Your task to perform on an android device: install app "Pluto TV - Live TV and Movies" Image 0: 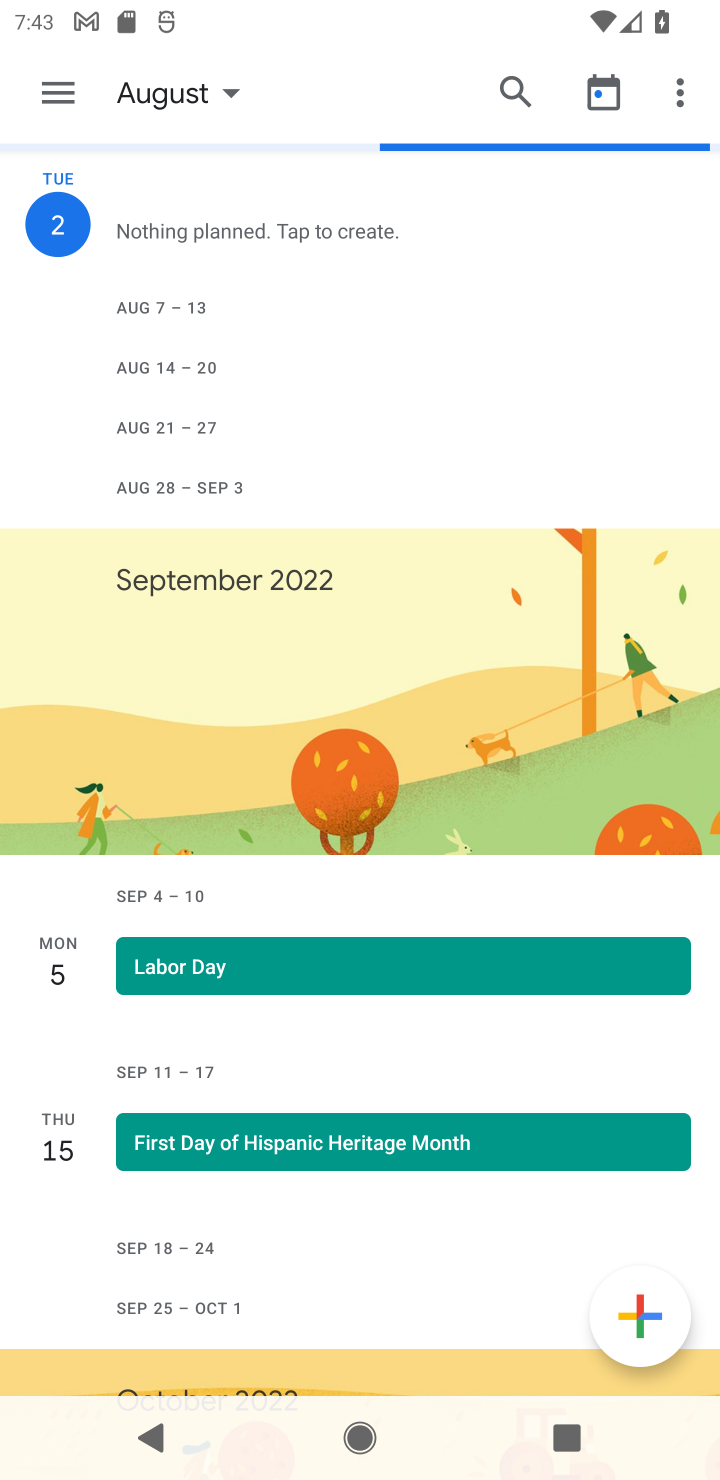
Step 0: press back button
Your task to perform on an android device: install app "Pluto TV - Live TV and Movies" Image 1: 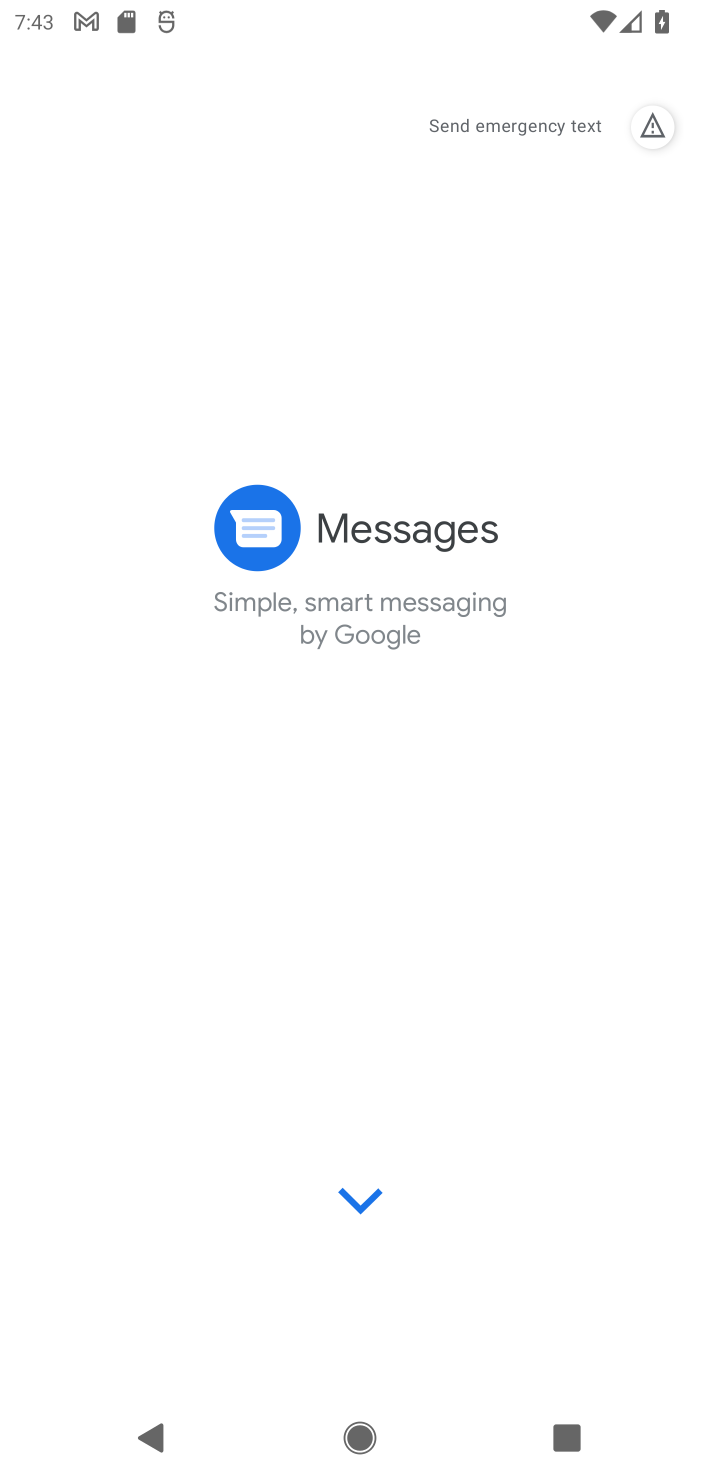
Step 1: press back button
Your task to perform on an android device: install app "Pluto TV - Live TV and Movies" Image 2: 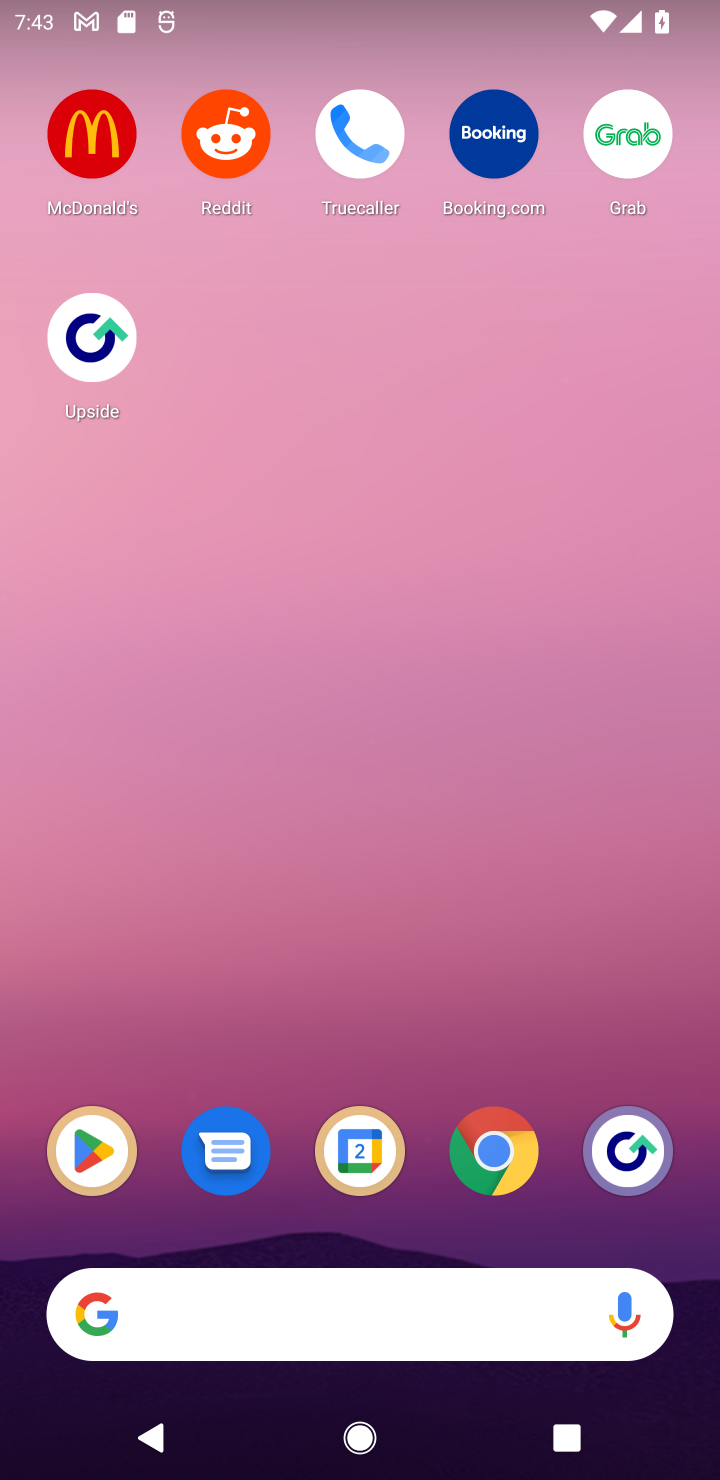
Step 2: drag from (365, 1245) to (370, 145)
Your task to perform on an android device: install app "Pluto TV - Live TV and Movies" Image 3: 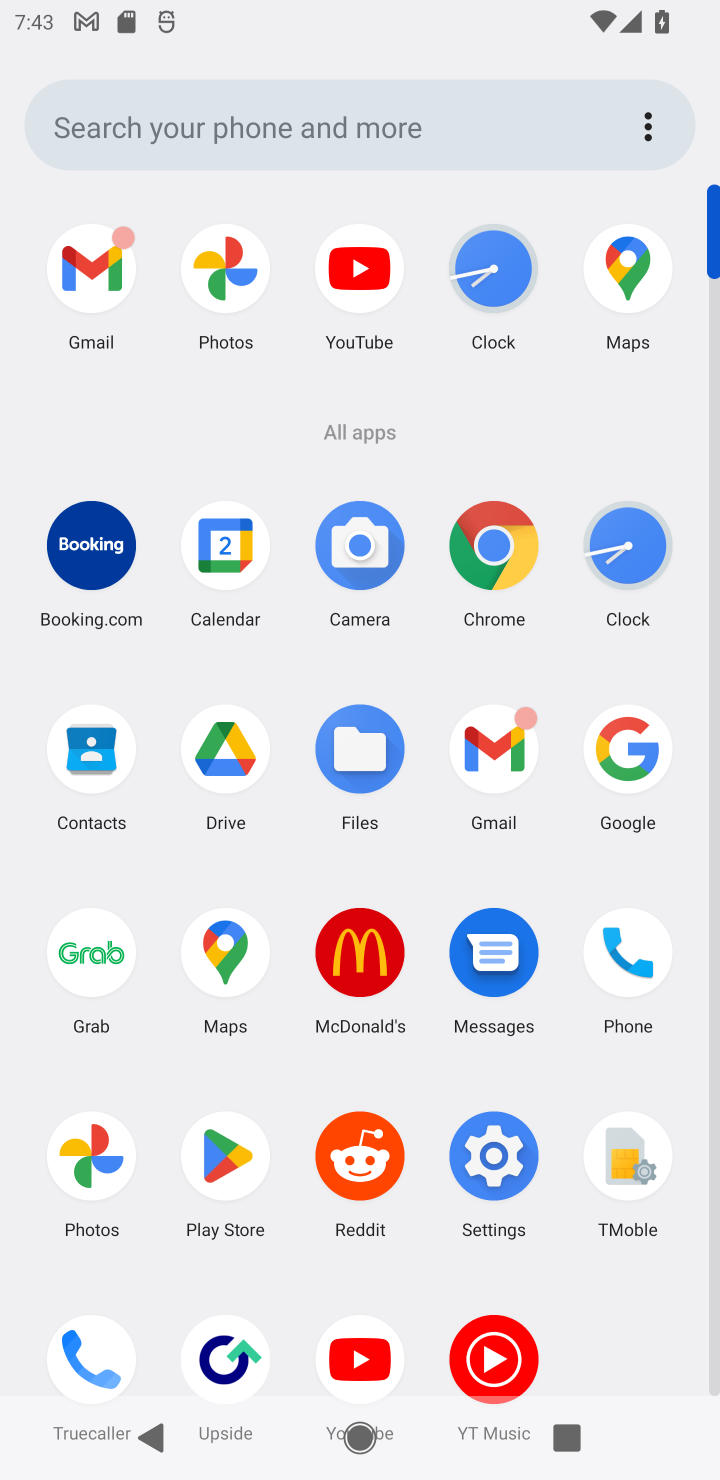
Step 3: click (222, 1216)
Your task to perform on an android device: install app "Pluto TV - Live TV and Movies" Image 4: 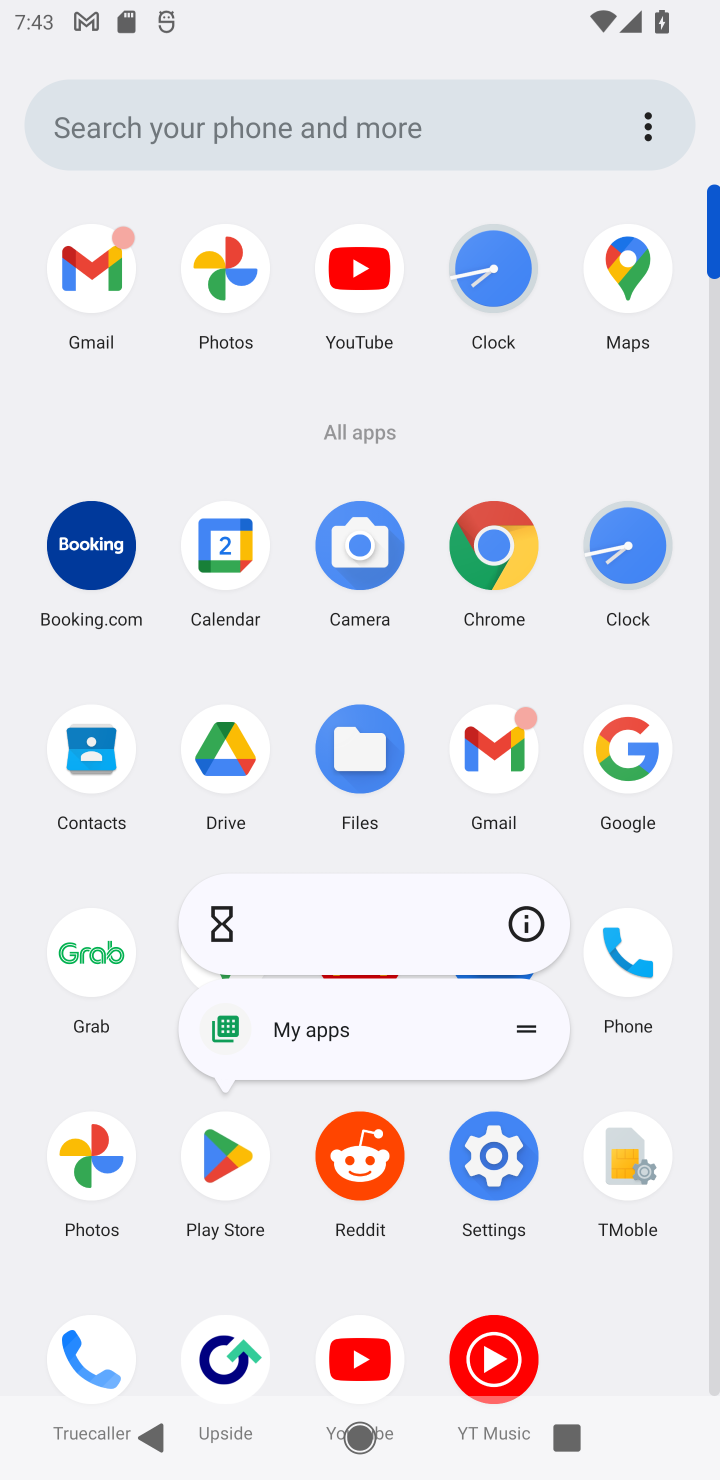
Step 4: click (246, 1169)
Your task to perform on an android device: install app "Pluto TV - Live TV and Movies" Image 5: 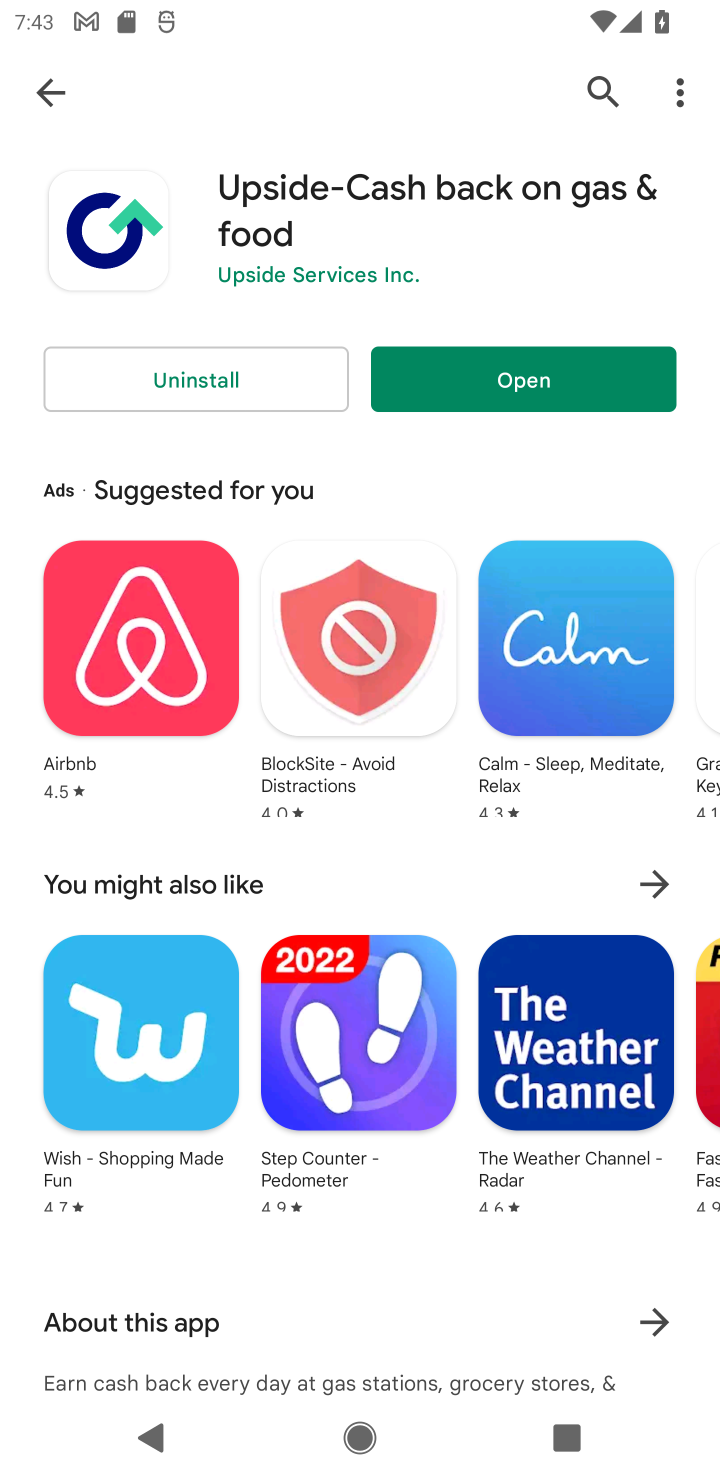
Step 5: click (42, 96)
Your task to perform on an android device: install app "Pluto TV - Live TV and Movies" Image 6: 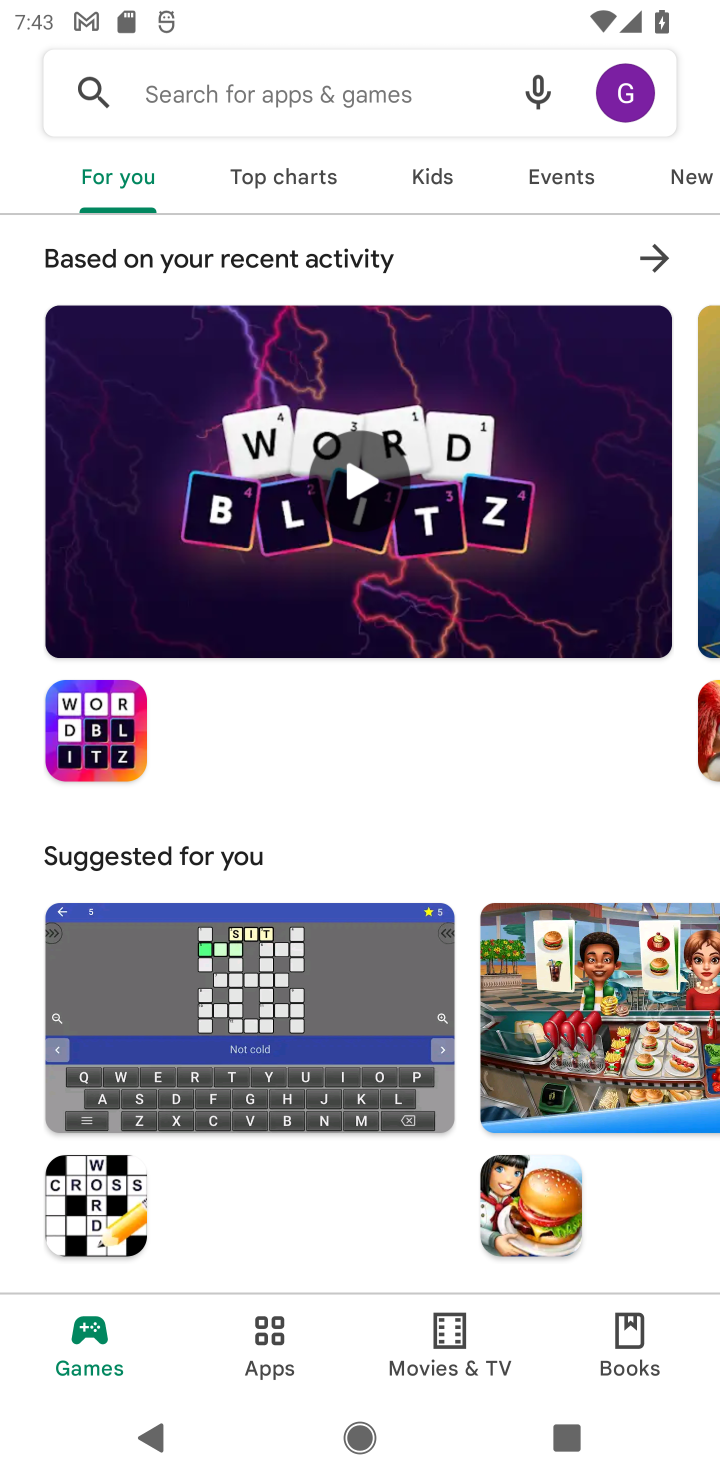
Step 6: click (277, 77)
Your task to perform on an android device: install app "Pluto TV - Live TV and Movies" Image 7: 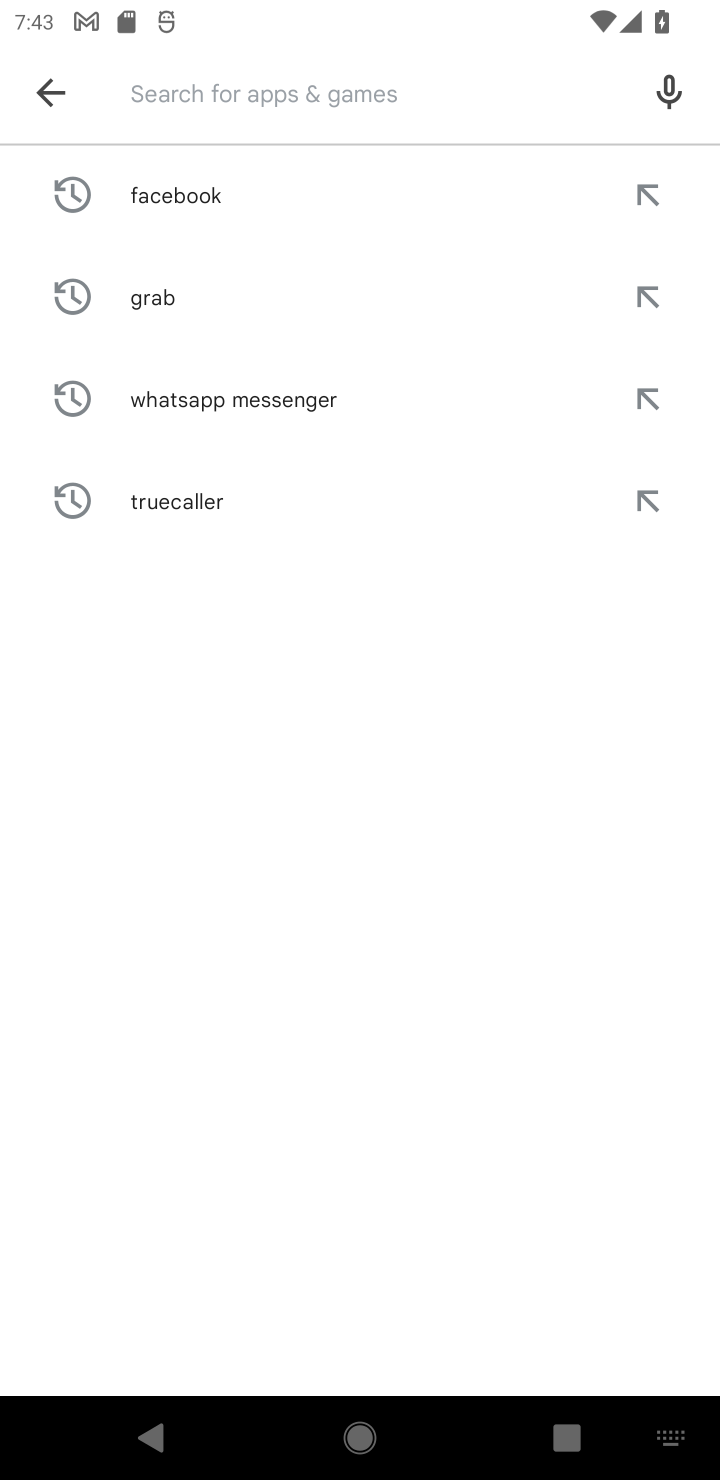
Step 7: type "Pluto TV - Live TV and Movies"
Your task to perform on an android device: install app "Pluto TV - Live TV and Movies" Image 8: 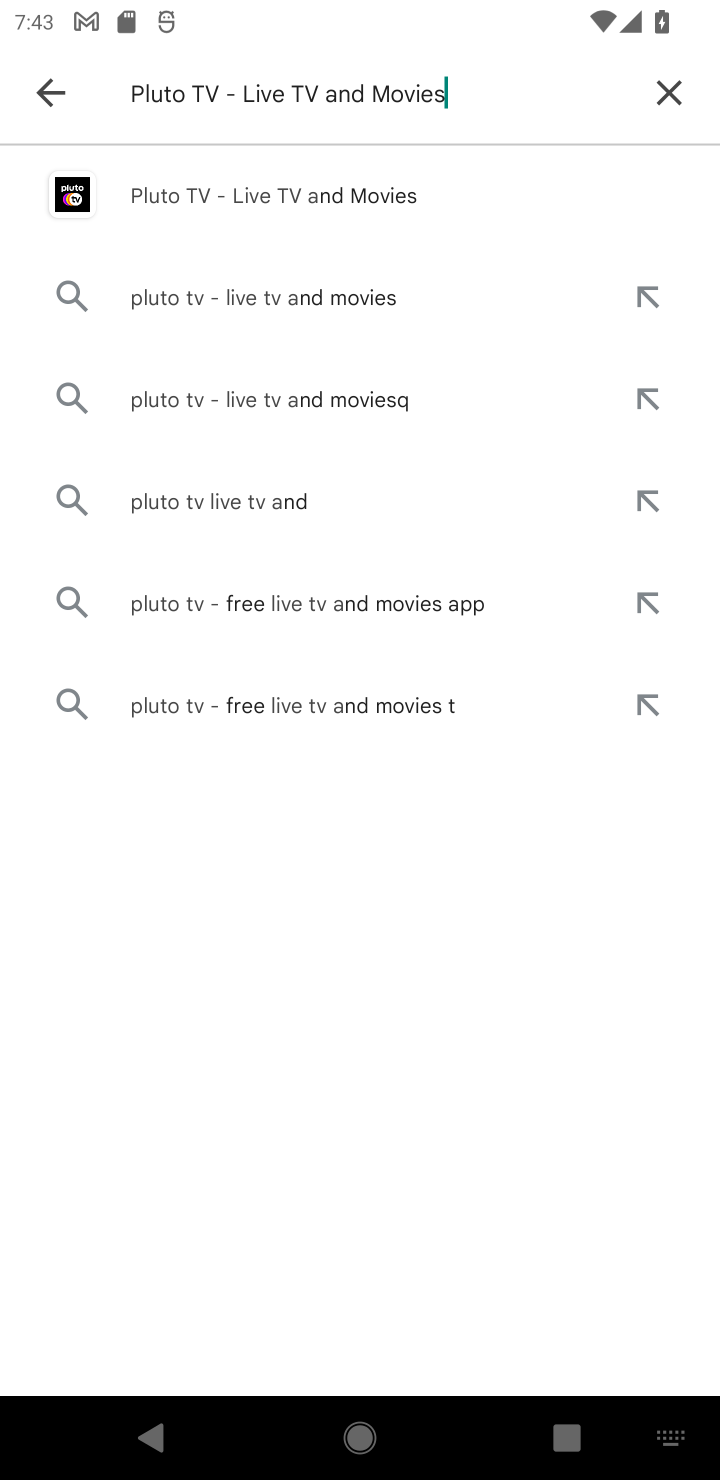
Step 8: type ""
Your task to perform on an android device: install app "Pluto TV - Live TV and Movies" Image 9: 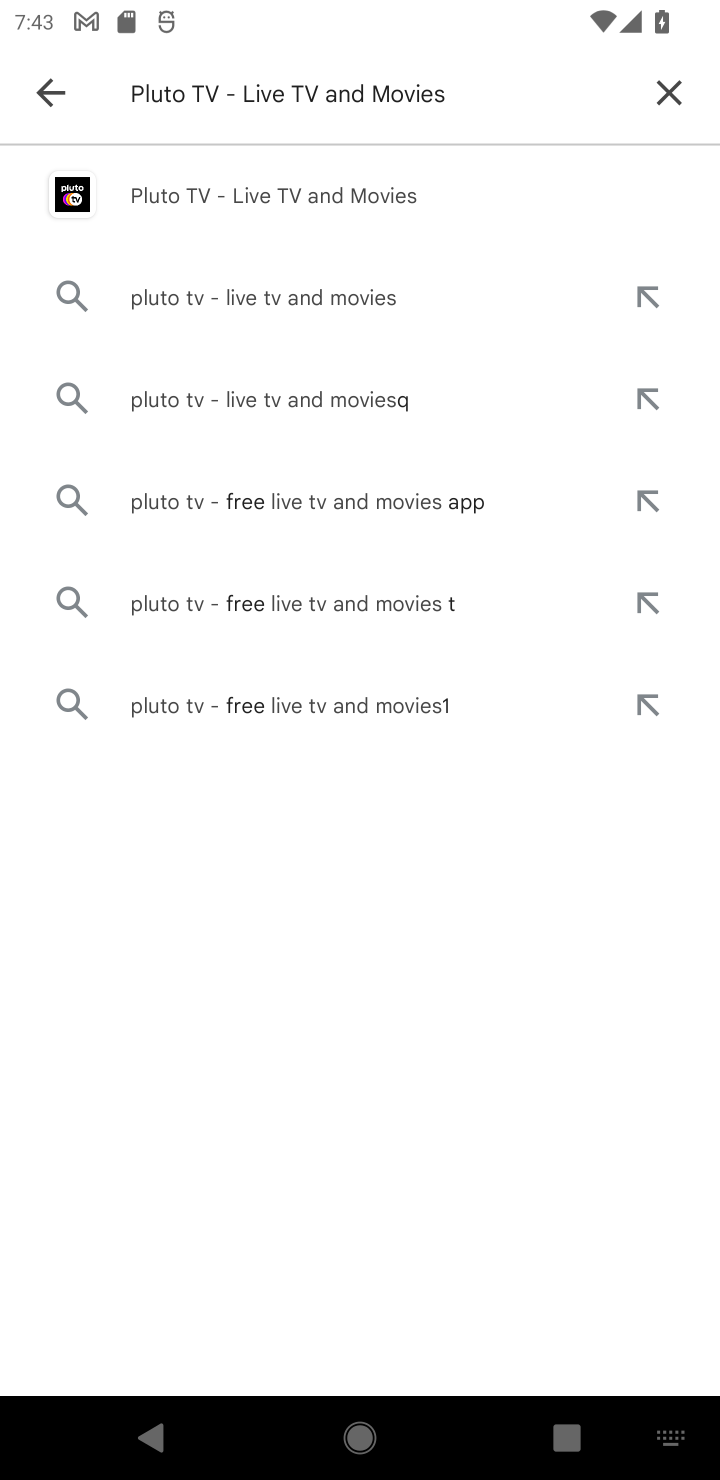
Step 9: click (160, 205)
Your task to perform on an android device: install app "Pluto TV - Live TV and Movies" Image 10: 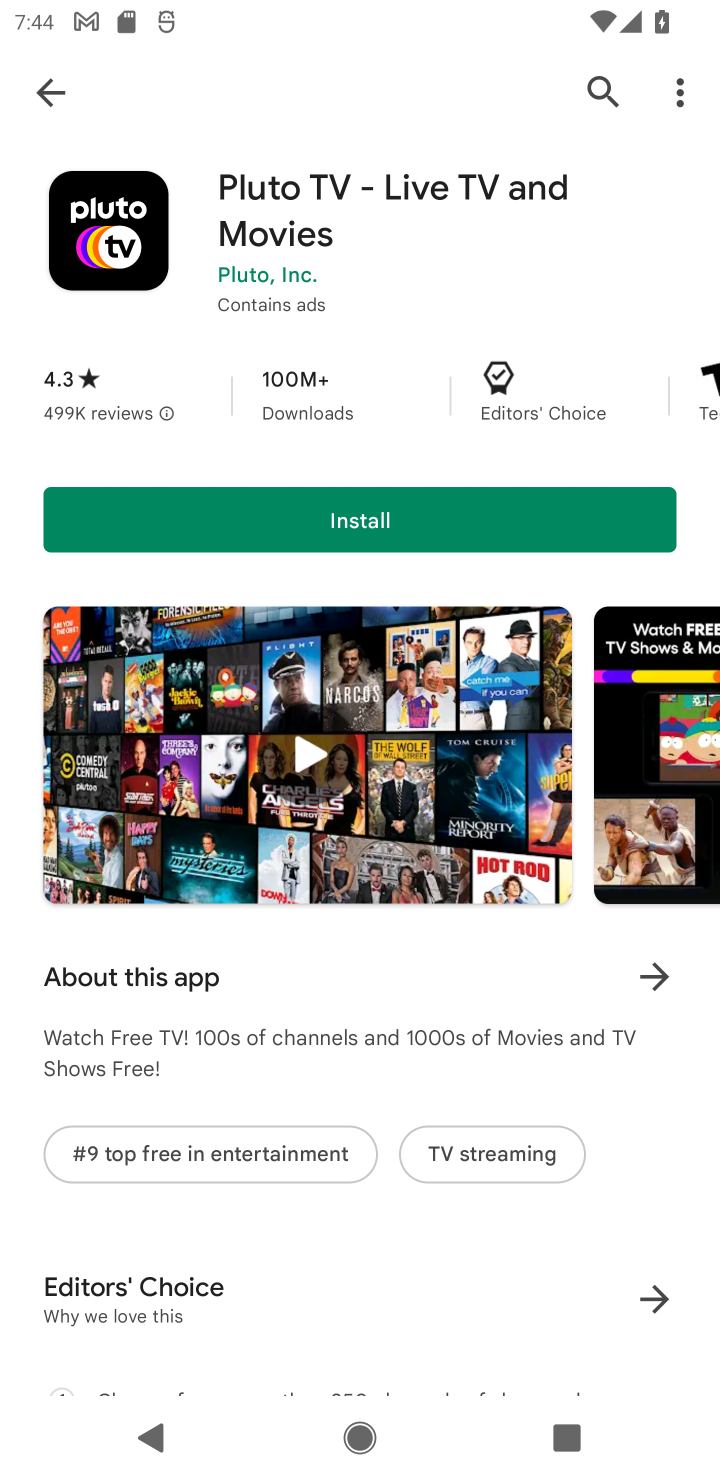
Step 10: click (412, 534)
Your task to perform on an android device: install app "Pluto TV - Live TV and Movies" Image 11: 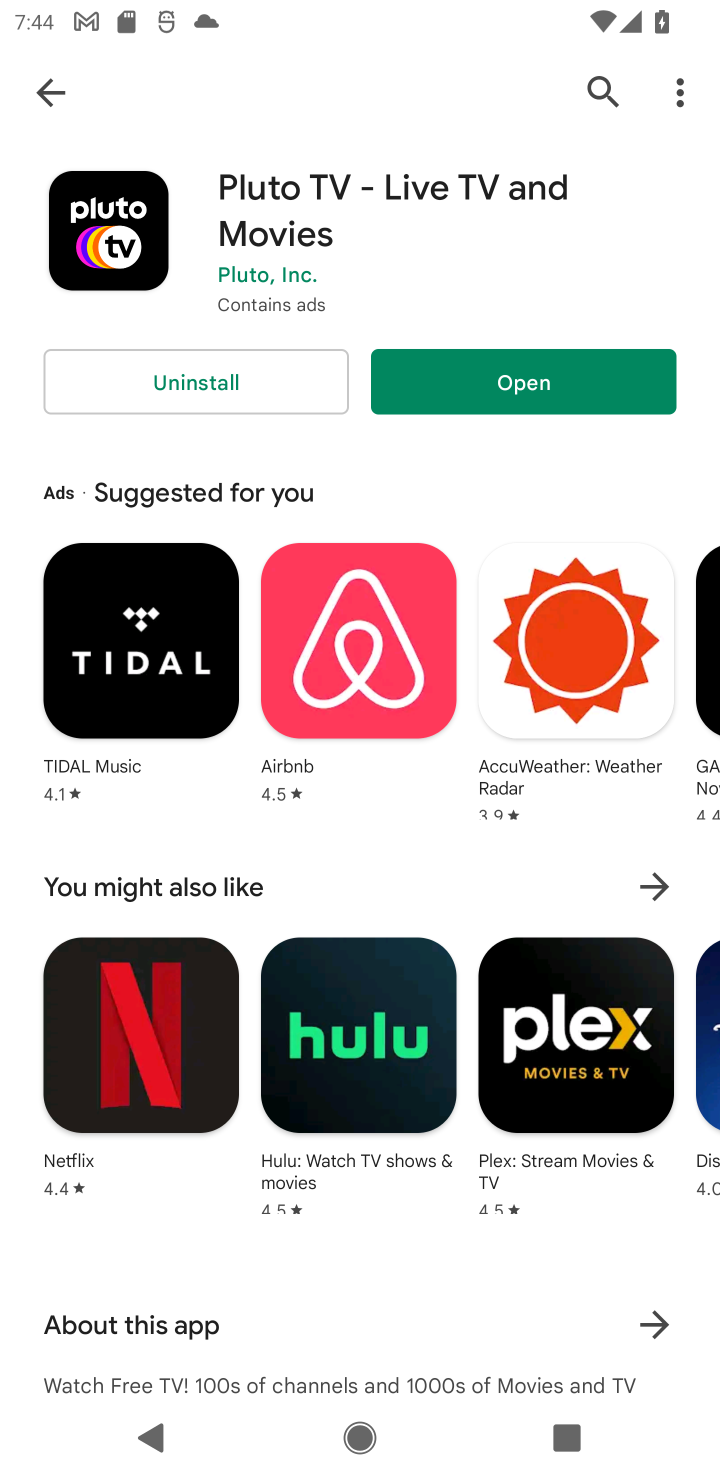
Step 11: click (499, 372)
Your task to perform on an android device: install app "Pluto TV - Live TV and Movies" Image 12: 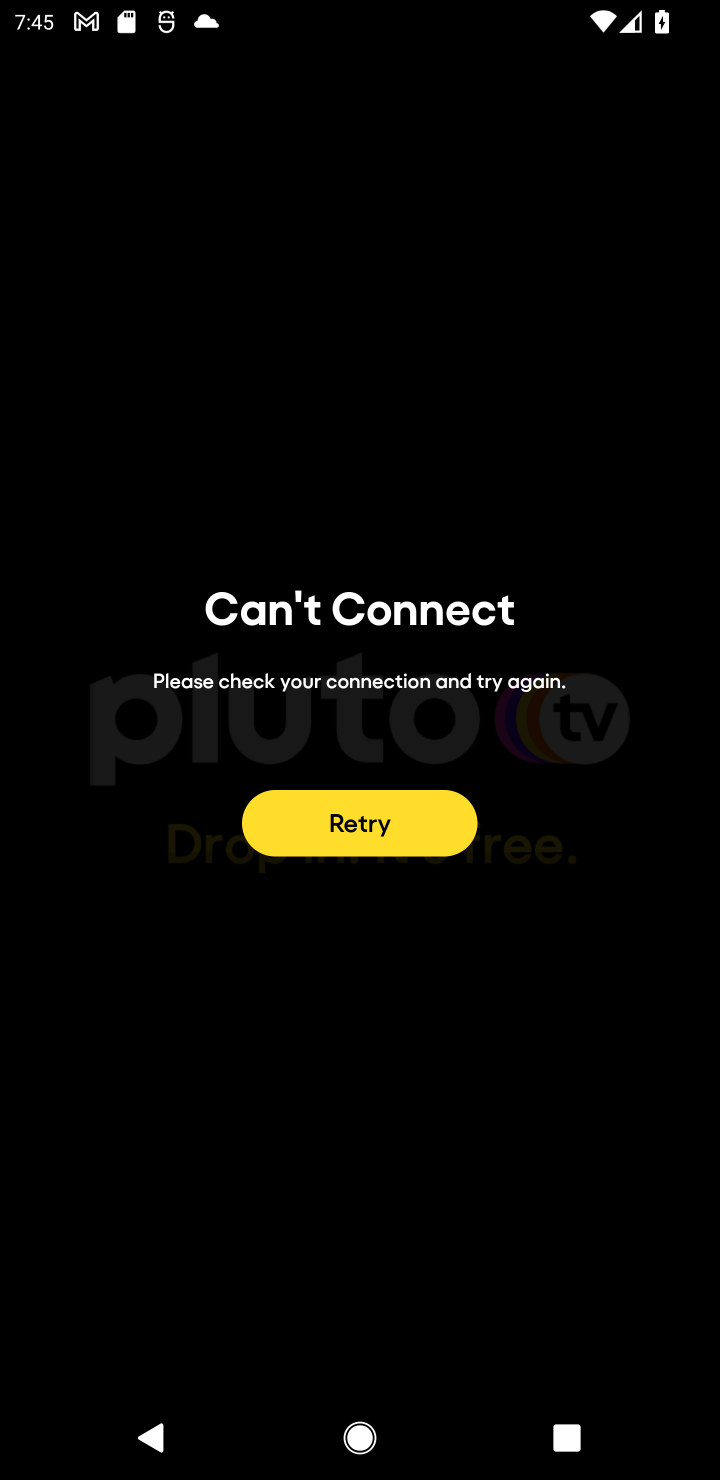
Step 12: press home button
Your task to perform on an android device: install app "Pluto TV - Live TV and Movies" Image 13: 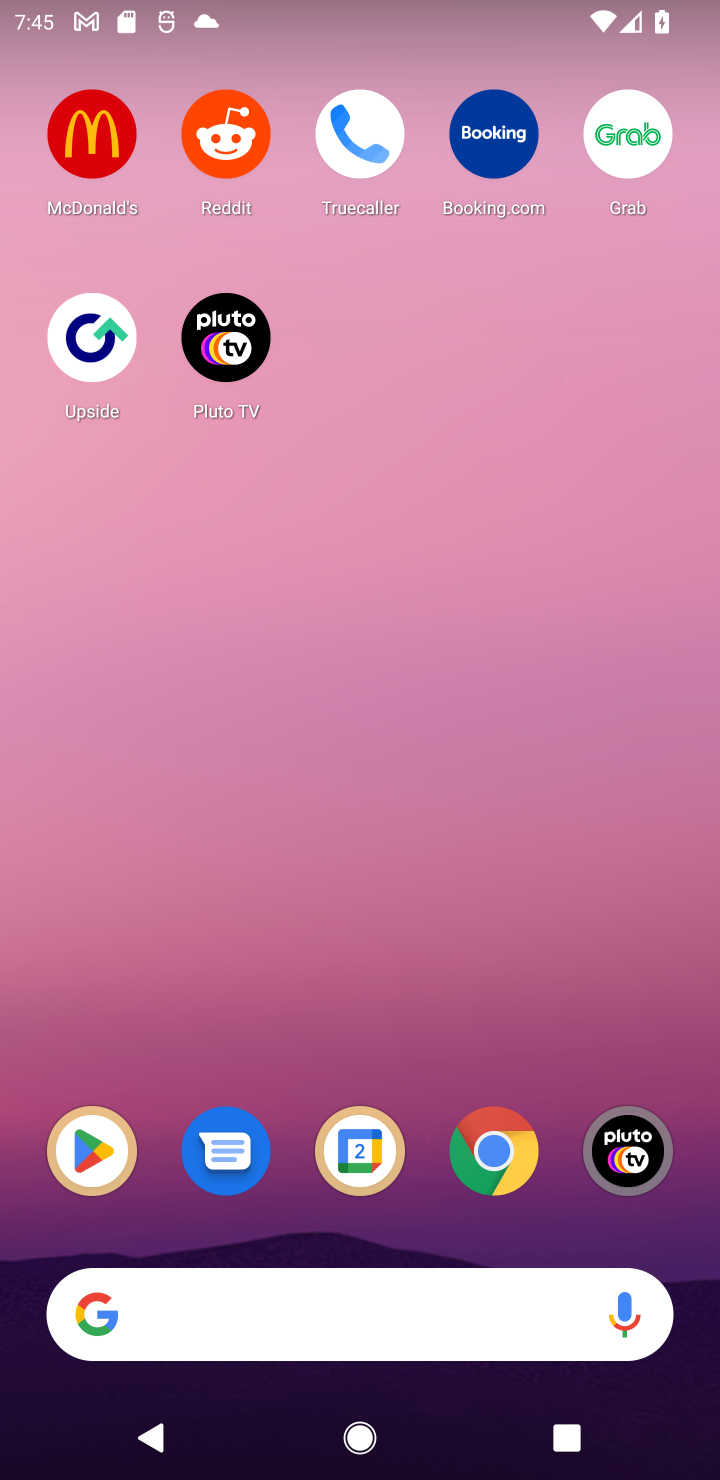
Step 13: click (90, 1159)
Your task to perform on an android device: install app "Pluto TV - Live TV and Movies" Image 14: 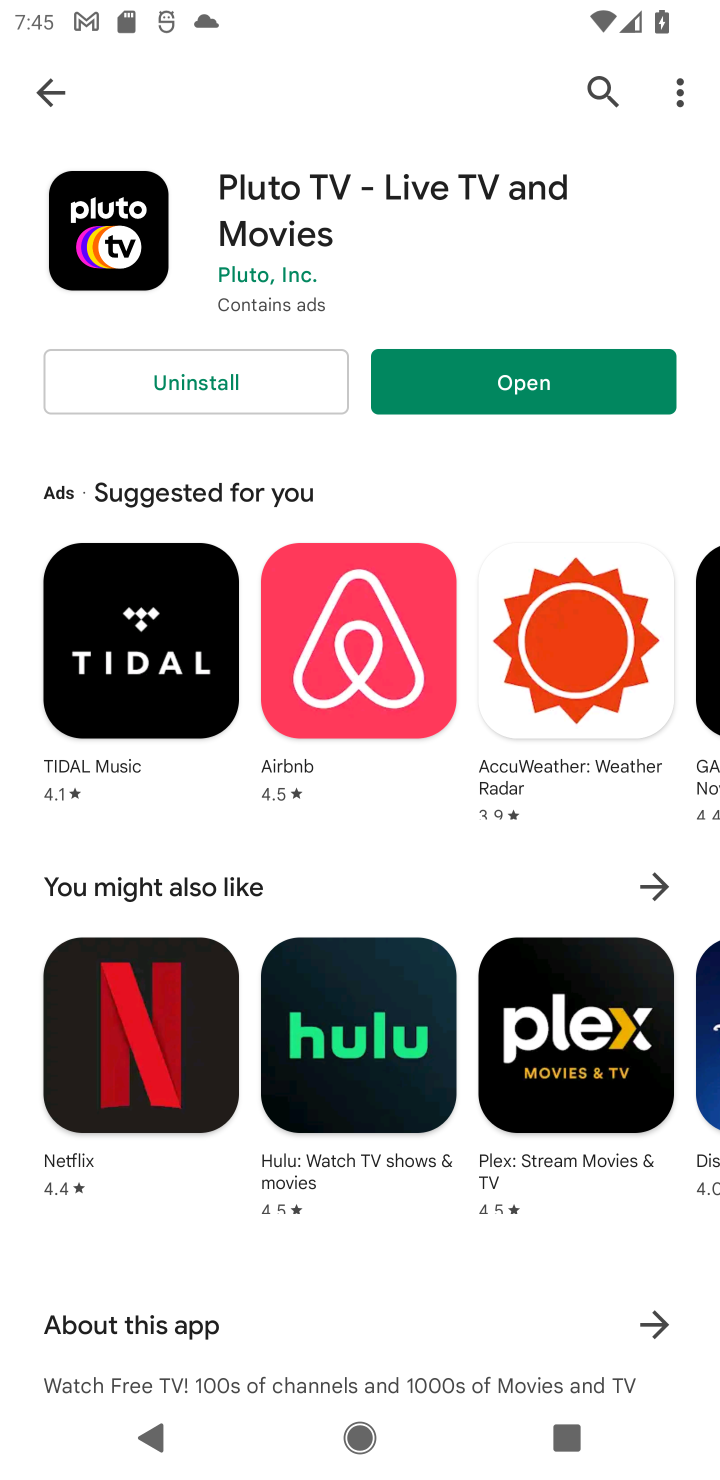
Step 14: click (40, 92)
Your task to perform on an android device: install app "Pluto TV - Live TV and Movies" Image 15: 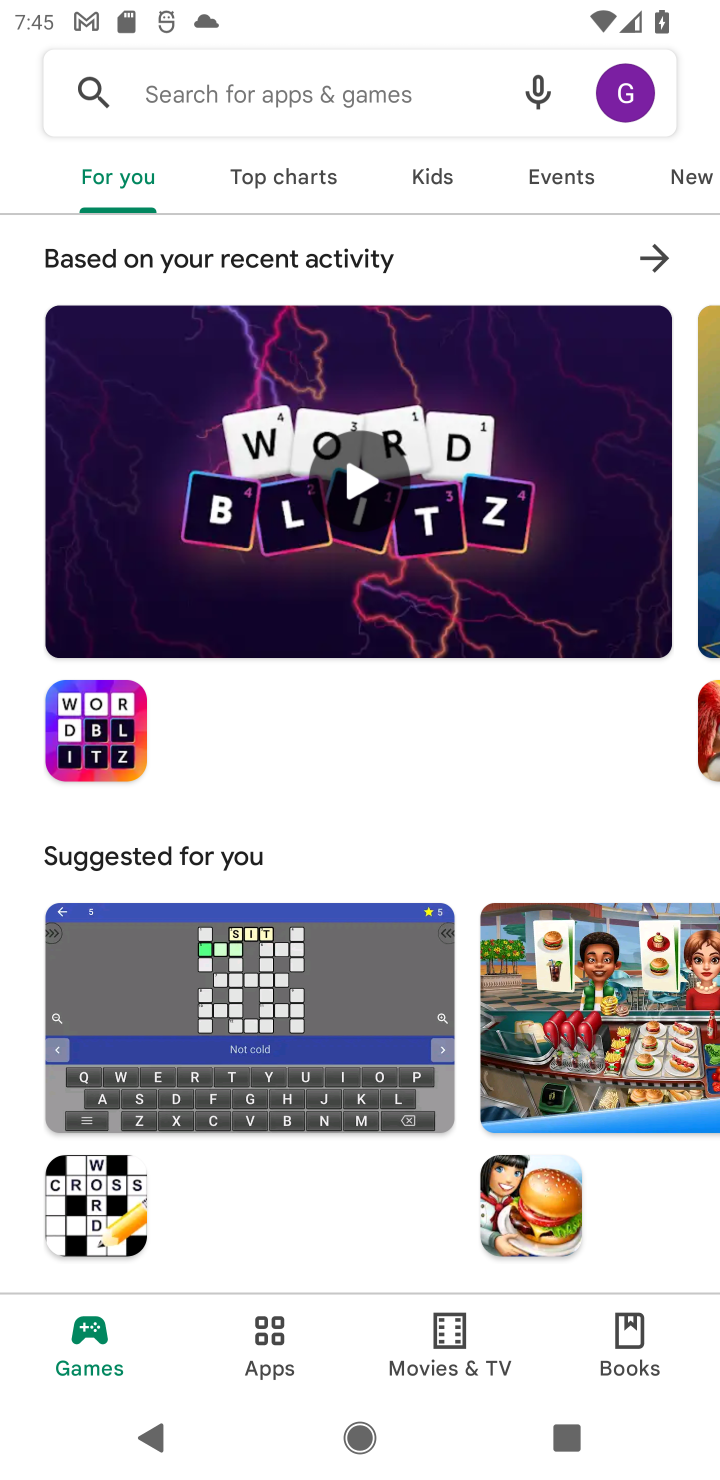
Step 15: click (125, 98)
Your task to perform on an android device: install app "Pluto TV - Live TV and Movies" Image 16: 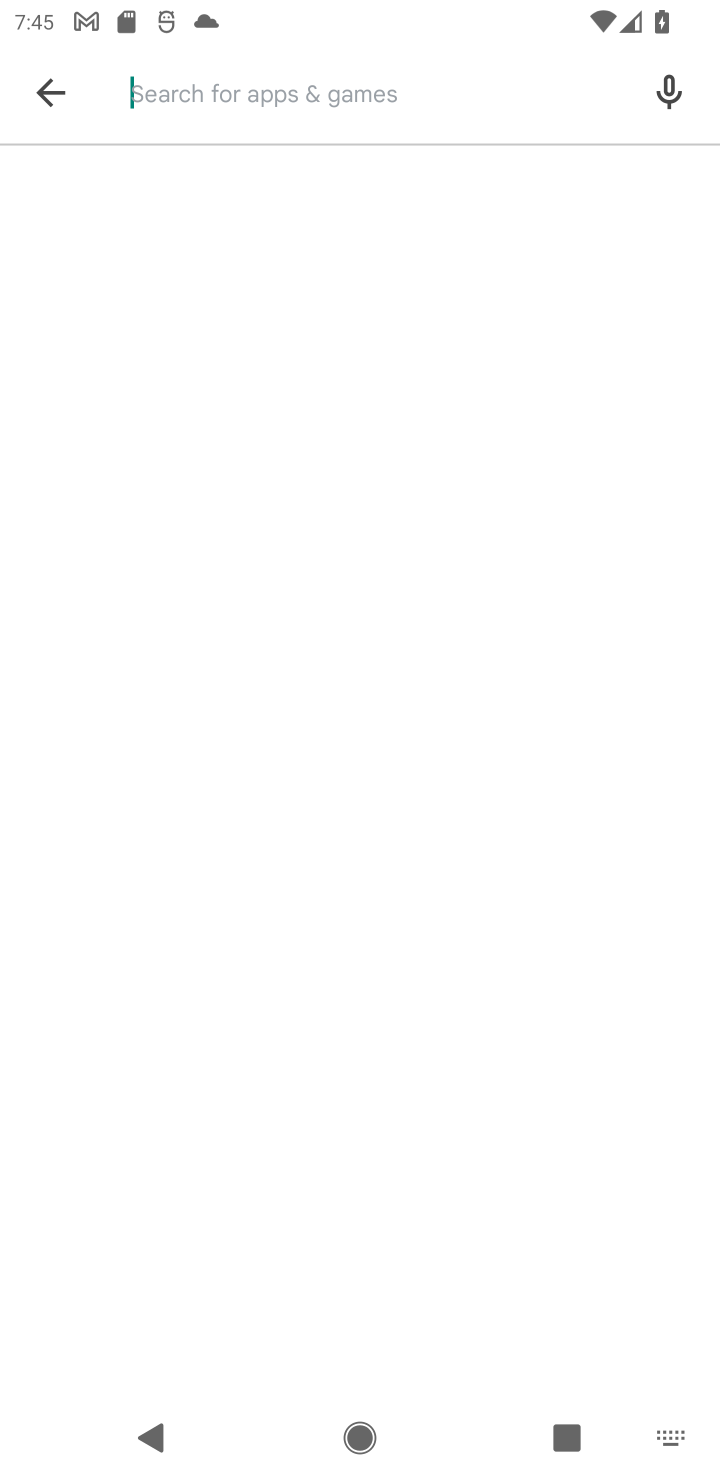
Step 16: click (148, 103)
Your task to perform on an android device: install app "Pluto TV - Live TV and Movies" Image 17: 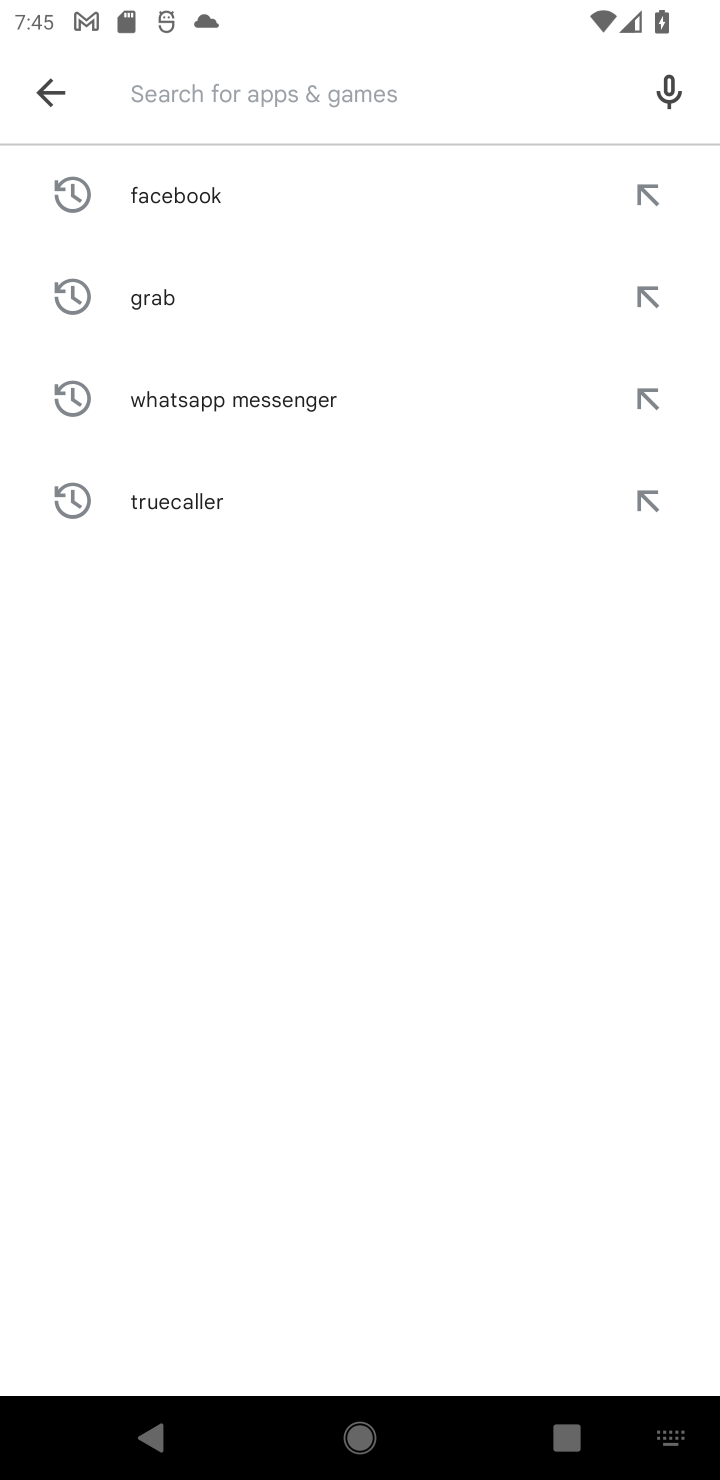
Step 17: type "Pluto"
Your task to perform on an android device: install app "Pluto TV - Live TV and Movies" Image 18: 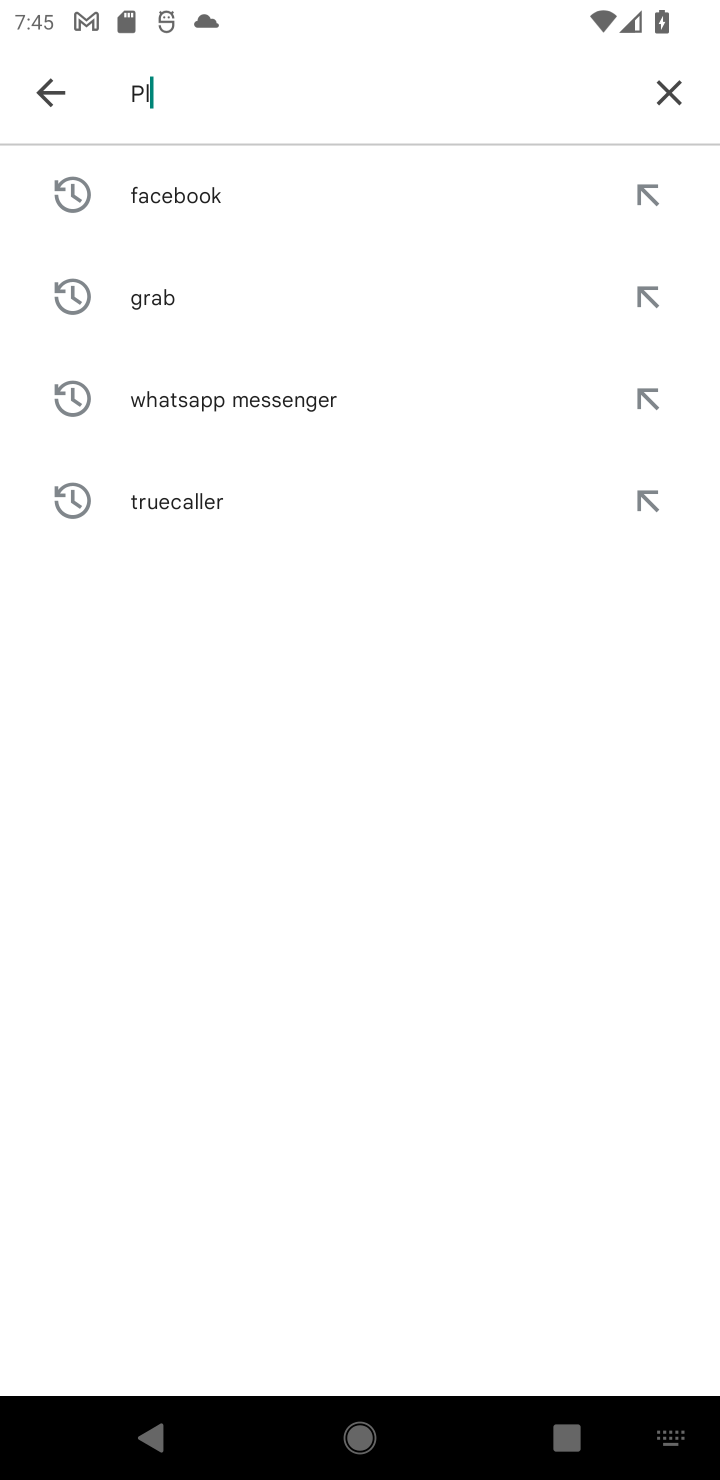
Step 18: type ""
Your task to perform on an android device: install app "Pluto TV - Live TV and Movies" Image 19: 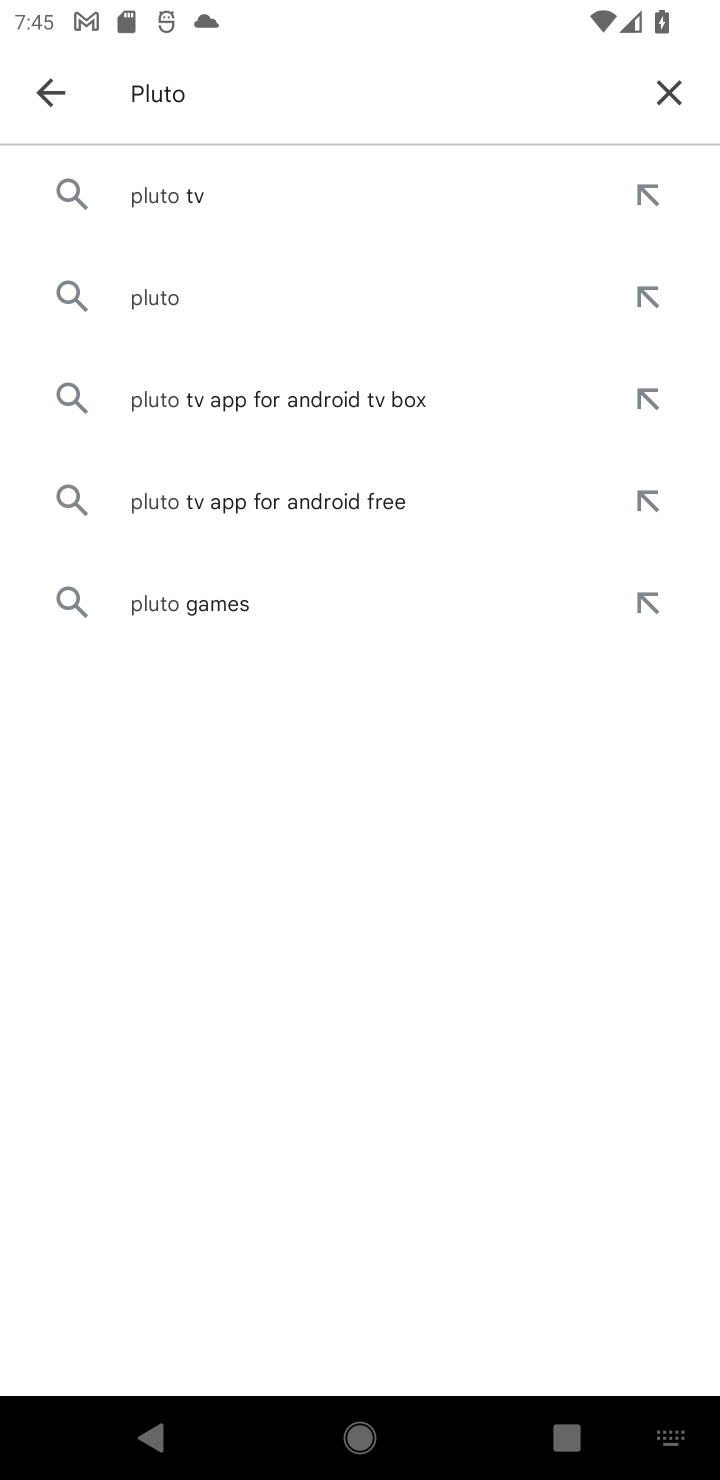
Step 19: click (101, 169)
Your task to perform on an android device: install app "Pluto TV - Live TV and Movies" Image 20: 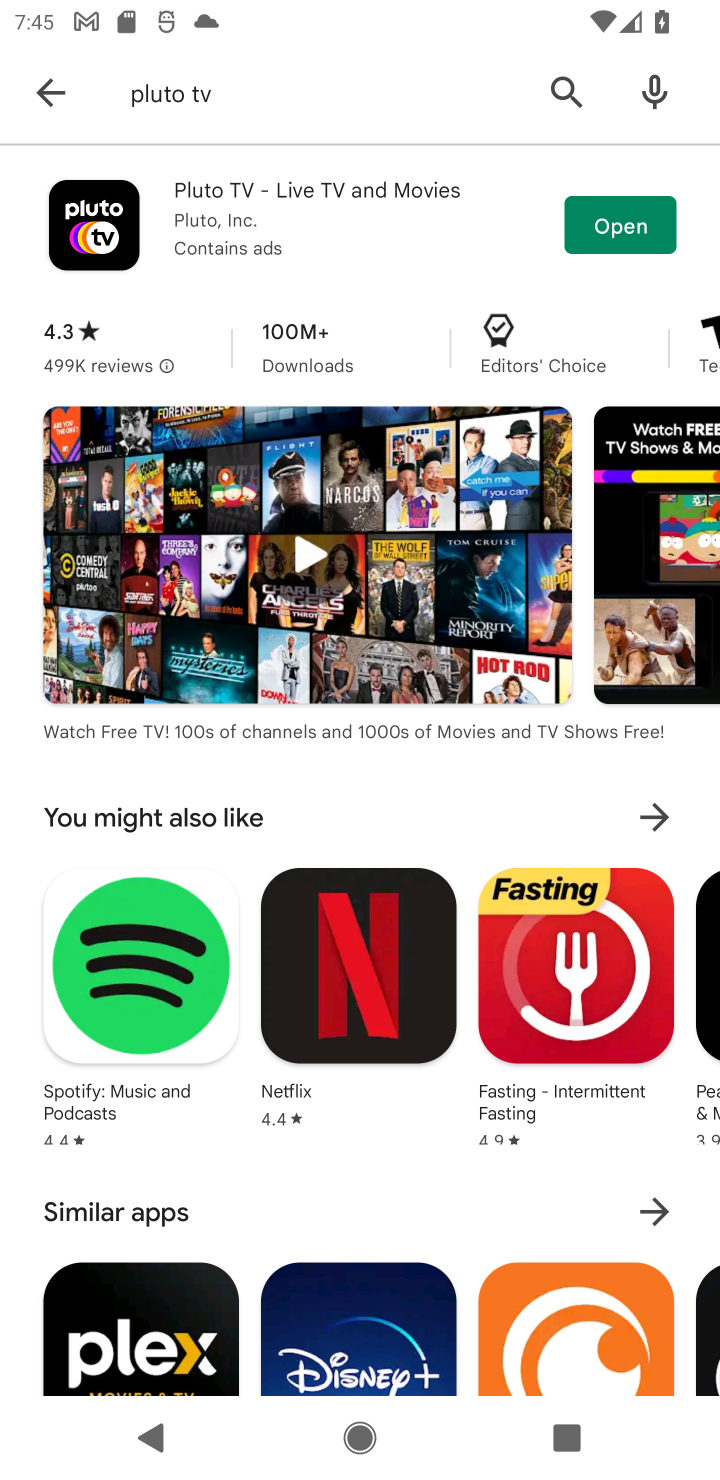
Step 20: click (652, 232)
Your task to perform on an android device: install app "Pluto TV - Live TV and Movies" Image 21: 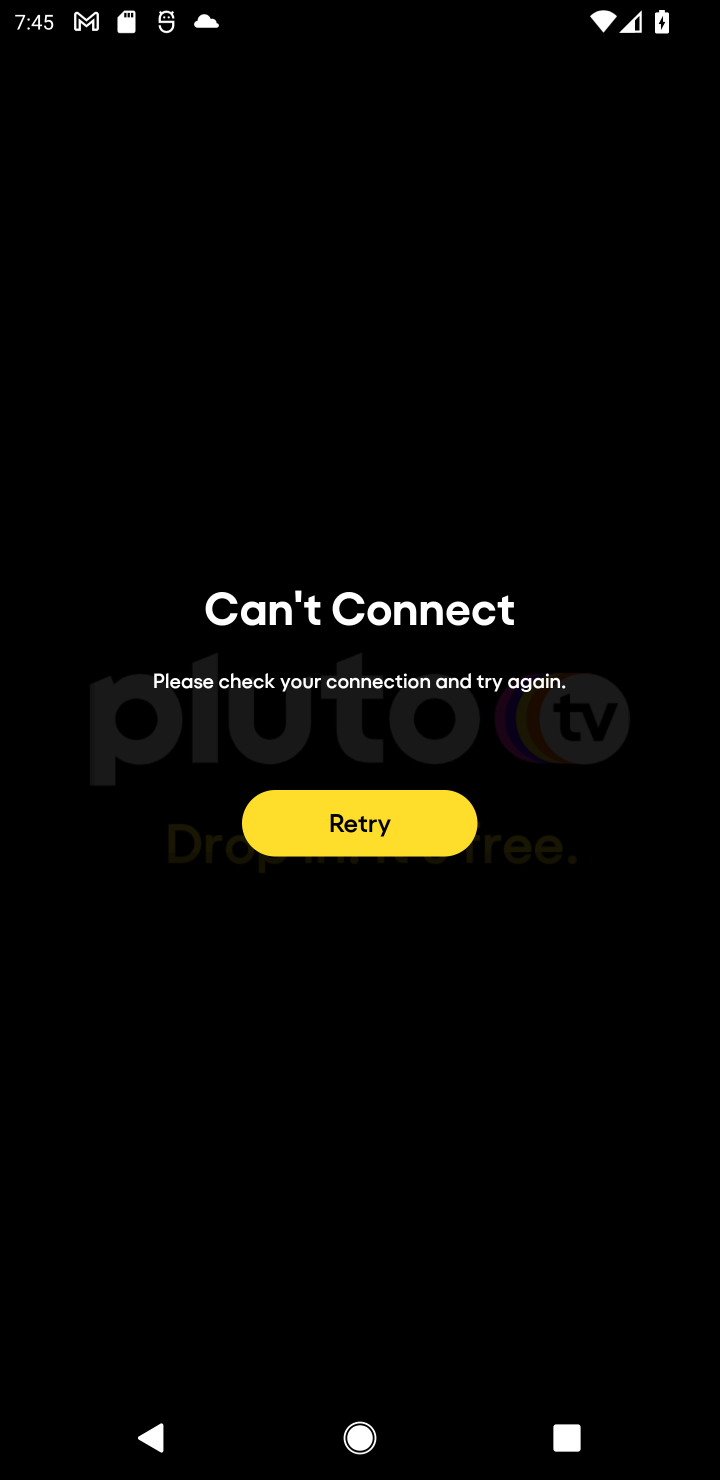
Step 21: task complete